Your task to perform on an android device: Open Amazon Image 0: 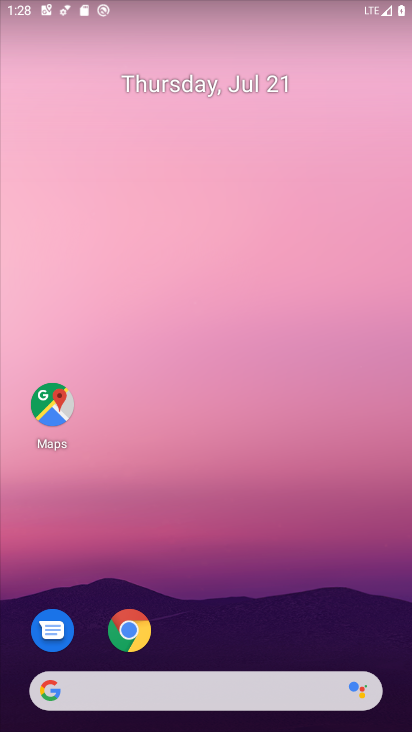
Step 0: drag from (229, 612) to (267, 308)
Your task to perform on an android device: Open Amazon Image 1: 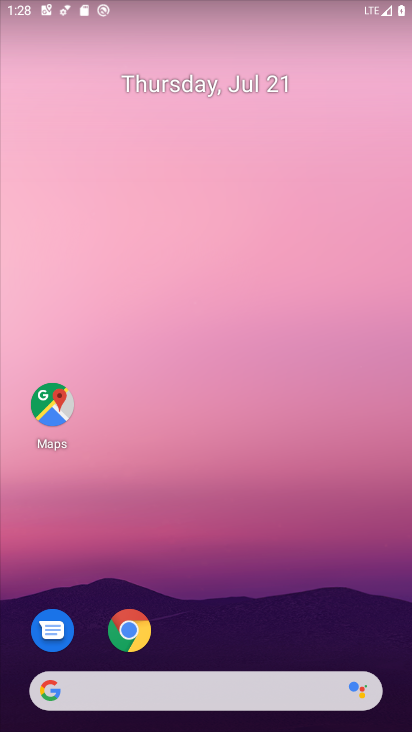
Step 1: click (121, 643)
Your task to perform on an android device: Open Amazon Image 2: 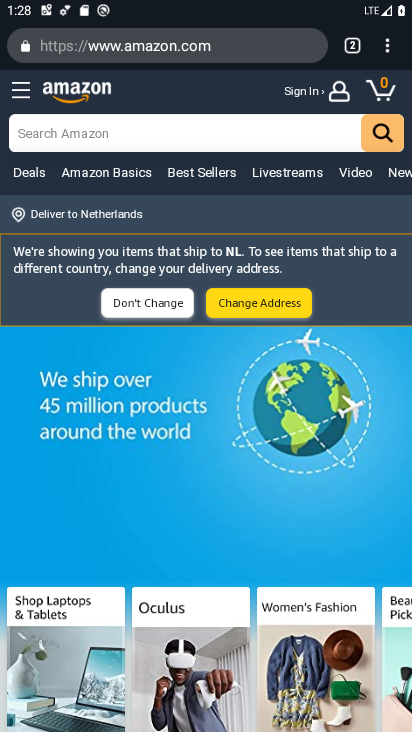
Step 2: task complete